Your task to perform on an android device: turn off sleep mode Image 0: 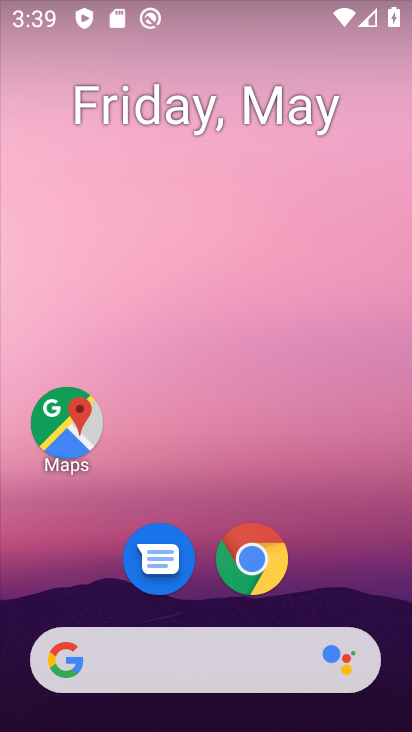
Step 0: drag from (358, 571) to (307, 123)
Your task to perform on an android device: turn off sleep mode Image 1: 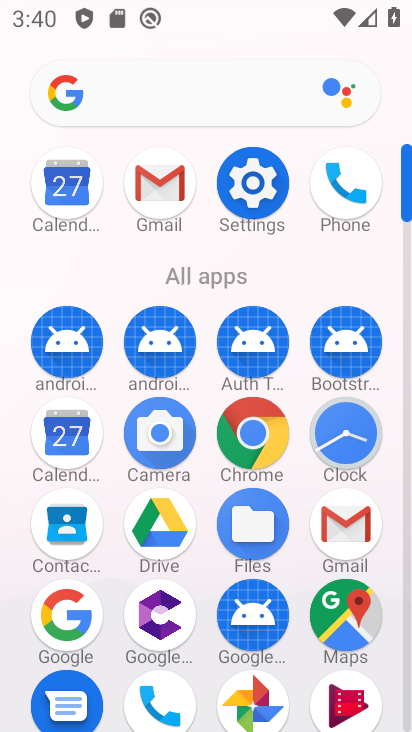
Step 1: click (259, 209)
Your task to perform on an android device: turn off sleep mode Image 2: 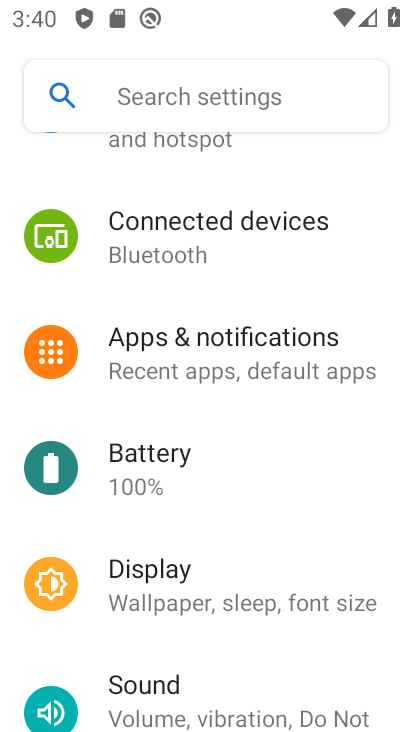
Step 2: click (243, 579)
Your task to perform on an android device: turn off sleep mode Image 3: 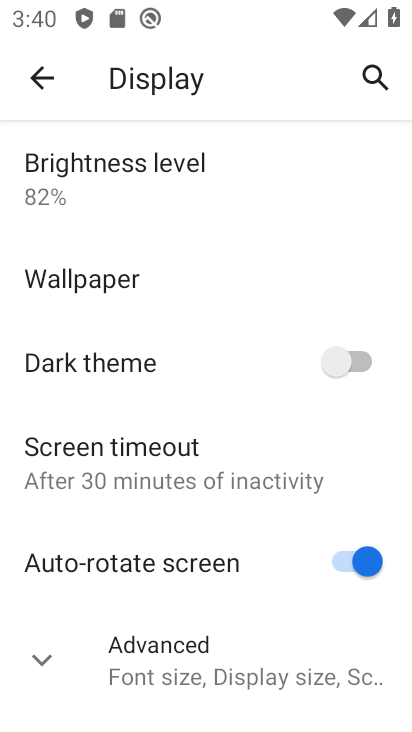
Step 3: drag from (157, 468) to (196, 263)
Your task to perform on an android device: turn off sleep mode Image 4: 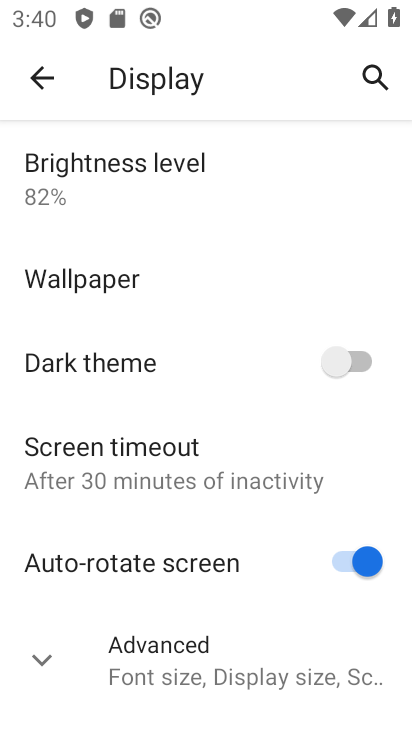
Step 4: click (191, 659)
Your task to perform on an android device: turn off sleep mode Image 5: 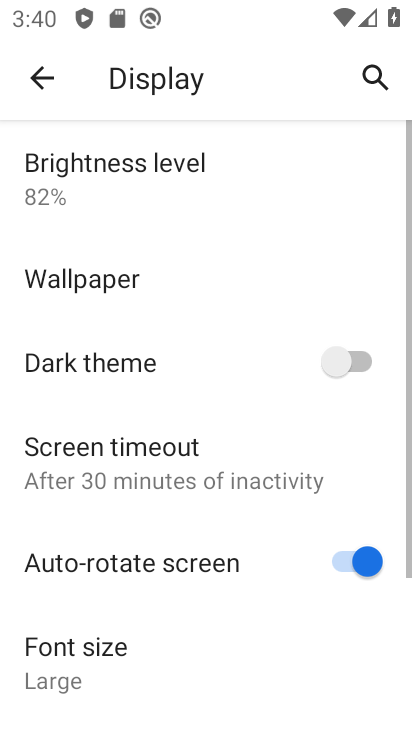
Step 5: task complete